Your task to perform on an android device: change keyboard looks Image 0: 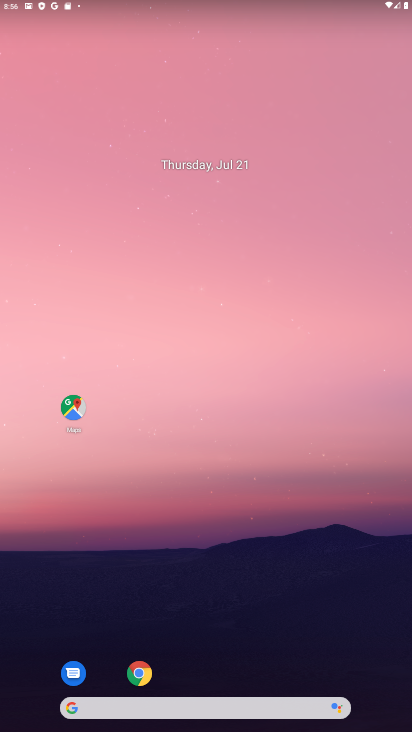
Step 0: press home button
Your task to perform on an android device: change keyboard looks Image 1: 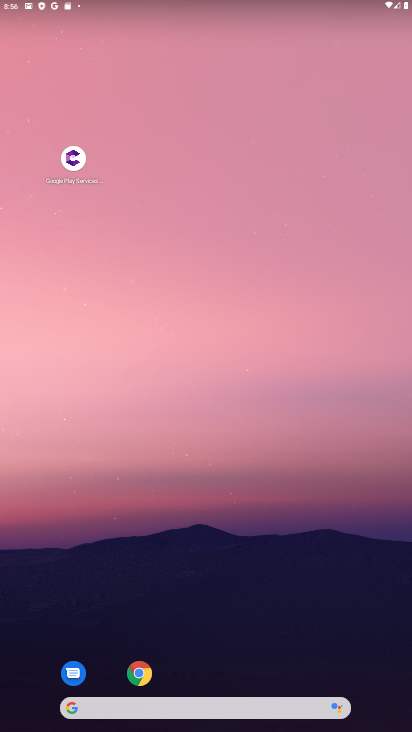
Step 1: drag from (211, 669) to (212, 123)
Your task to perform on an android device: change keyboard looks Image 2: 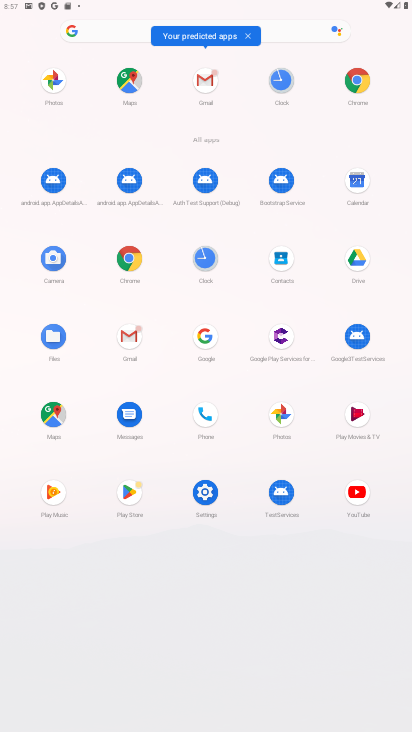
Step 2: click (202, 486)
Your task to perform on an android device: change keyboard looks Image 3: 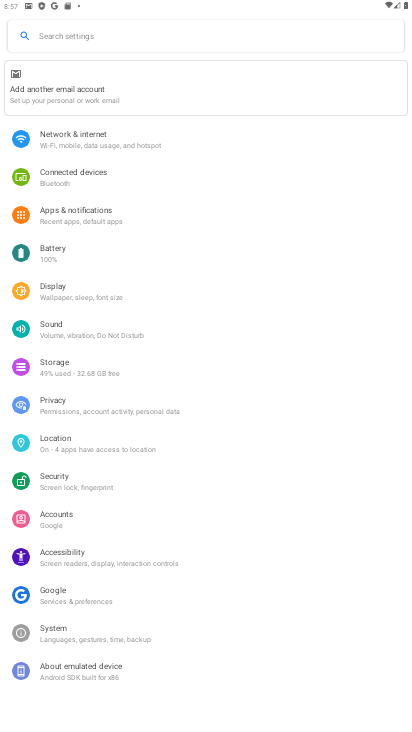
Step 3: click (63, 628)
Your task to perform on an android device: change keyboard looks Image 4: 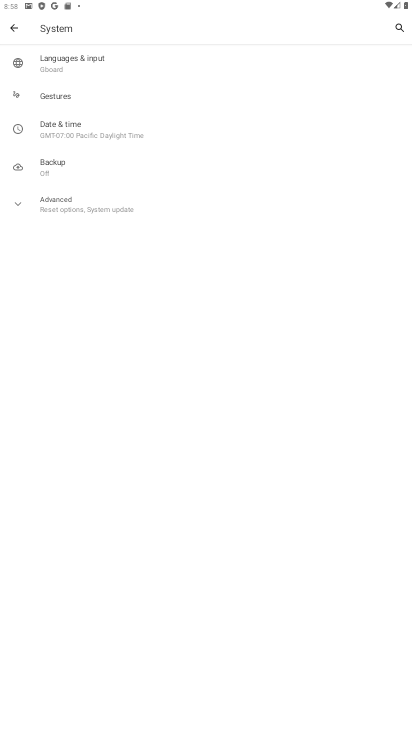
Step 4: click (79, 66)
Your task to perform on an android device: change keyboard looks Image 5: 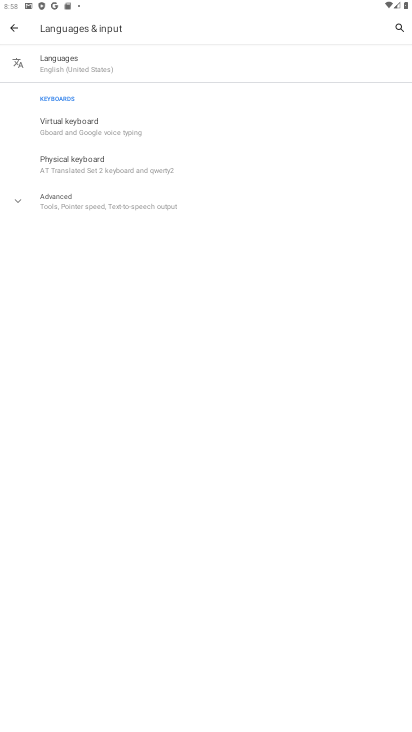
Step 5: click (71, 125)
Your task to perform on an android device: change keyboard looks Image 6: 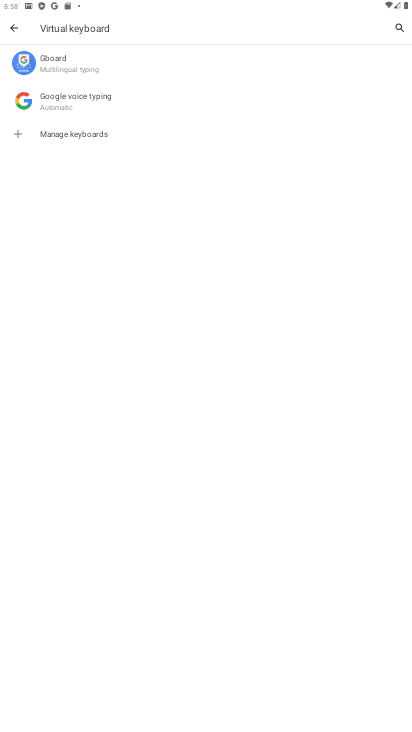
Step 6: click (72, 54)
Your task to perform on an android device: change keyboard looks Image 7: 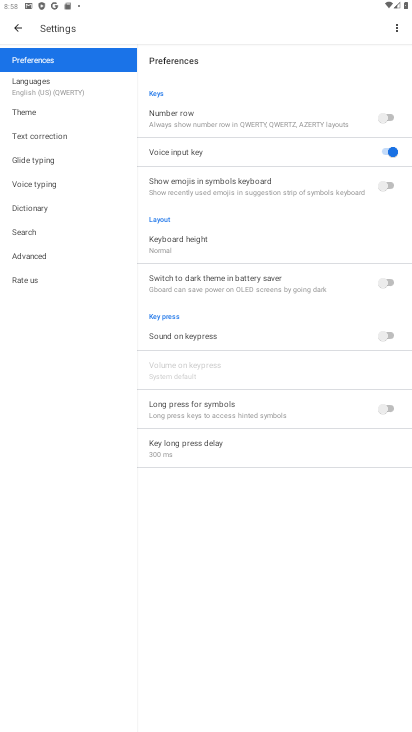
Step 7: click (27, 118)
Your task to perform on an android device: change keyboard looks Image 8: 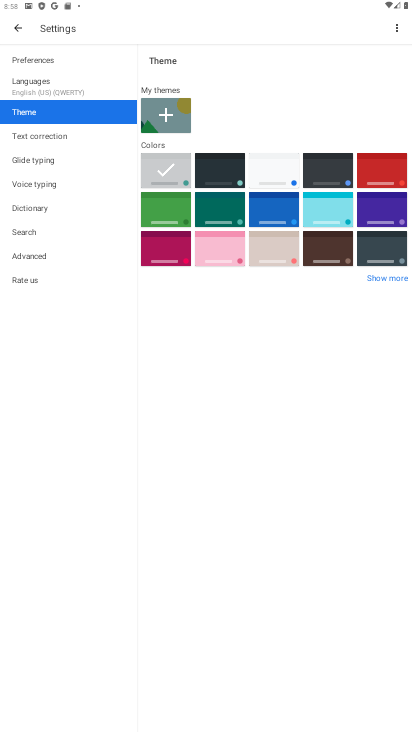
Step 8: click (275, 209)
Your task to perform on an android device: change keyboard looks Image 9: 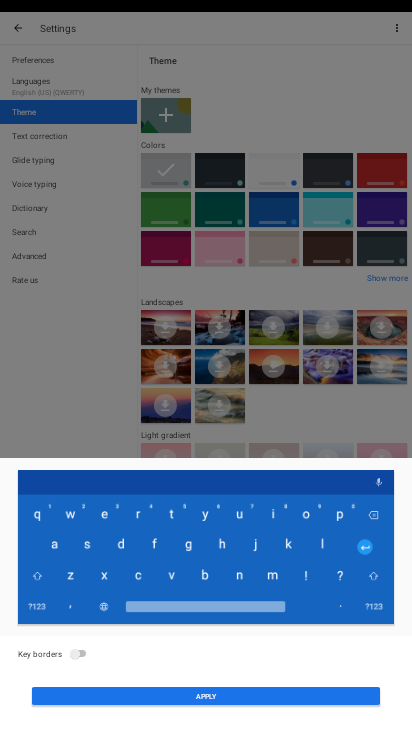
Step 9: click (215, 694)
Your task to perform on an android device: change keyboard looks Image 10: 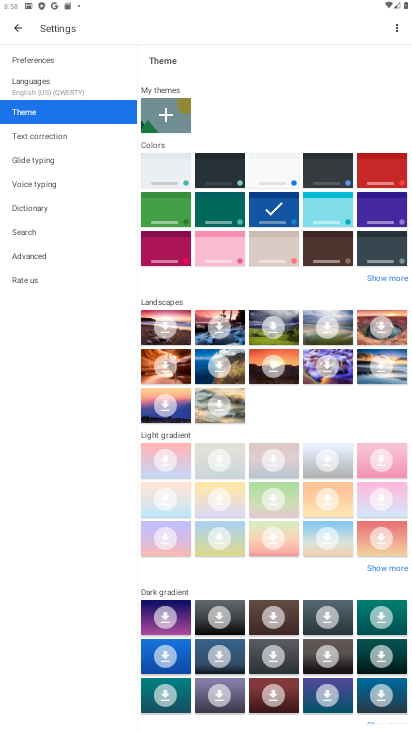
Step 10: task complete